Your task to perform on an android device: toggle notifications settings in the gmail app Image 0: 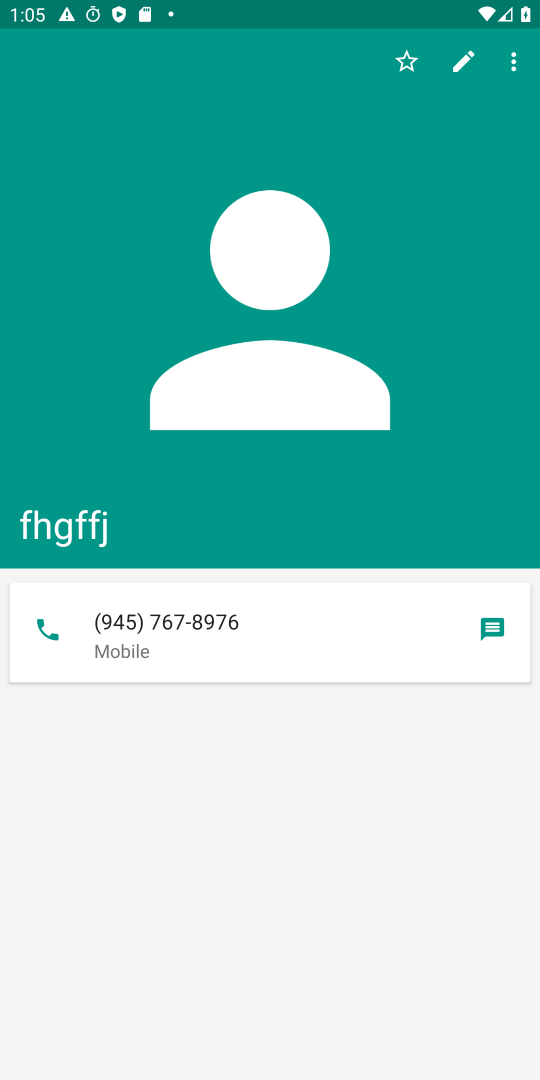
Step 0: press home button
Your task to perform on an android device: toggle notifications settings in the gmail app Image 1: 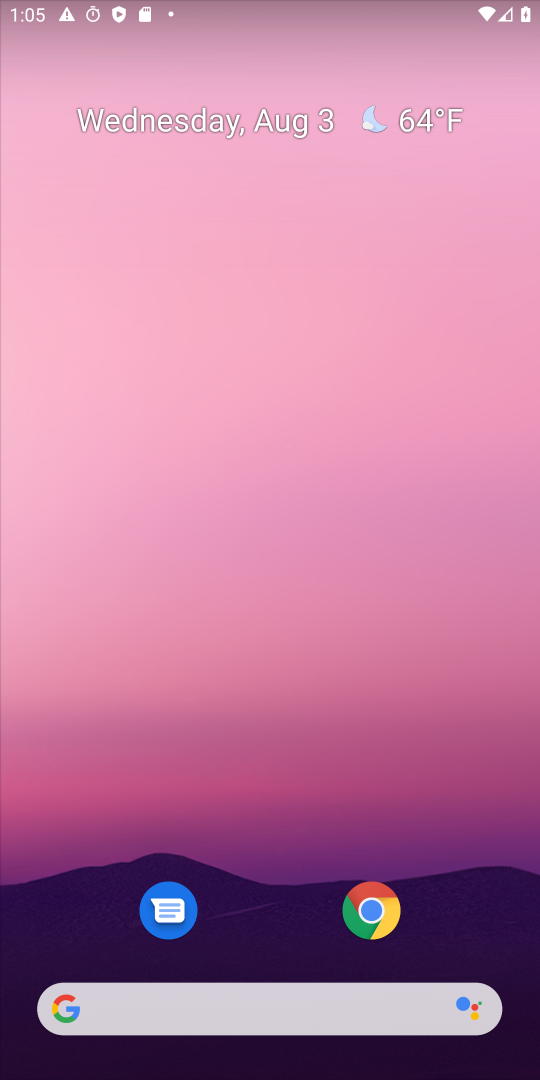
Step 1: drag from (287, 1009) to (406, 5)
Your task to perform on an android device: toggle notifications settings in the gmail app Image 2: 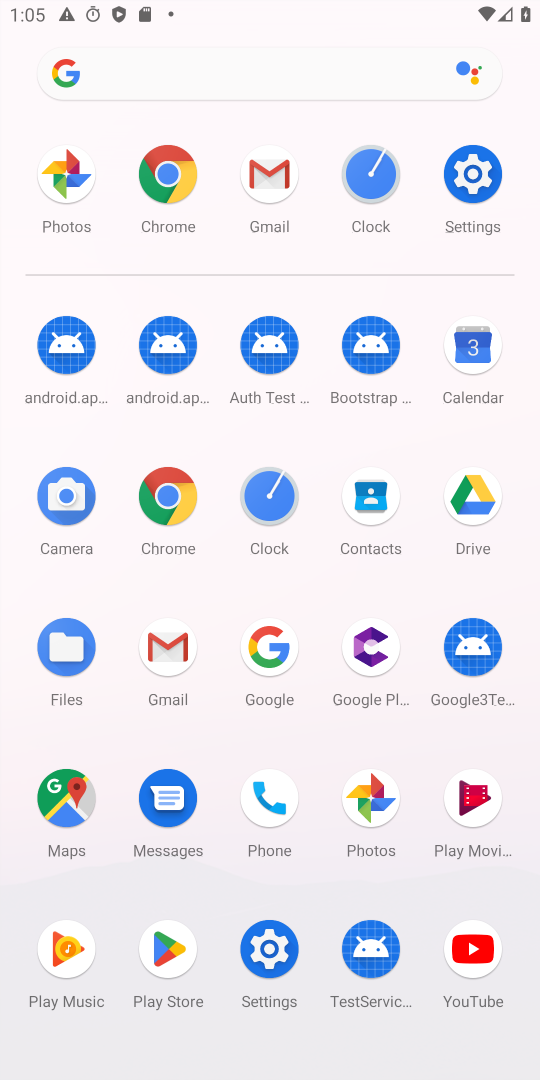
Step 2: click (156, 648)
Your task to perform on an android device: toggle notifications settings in the gmail app Image 3: 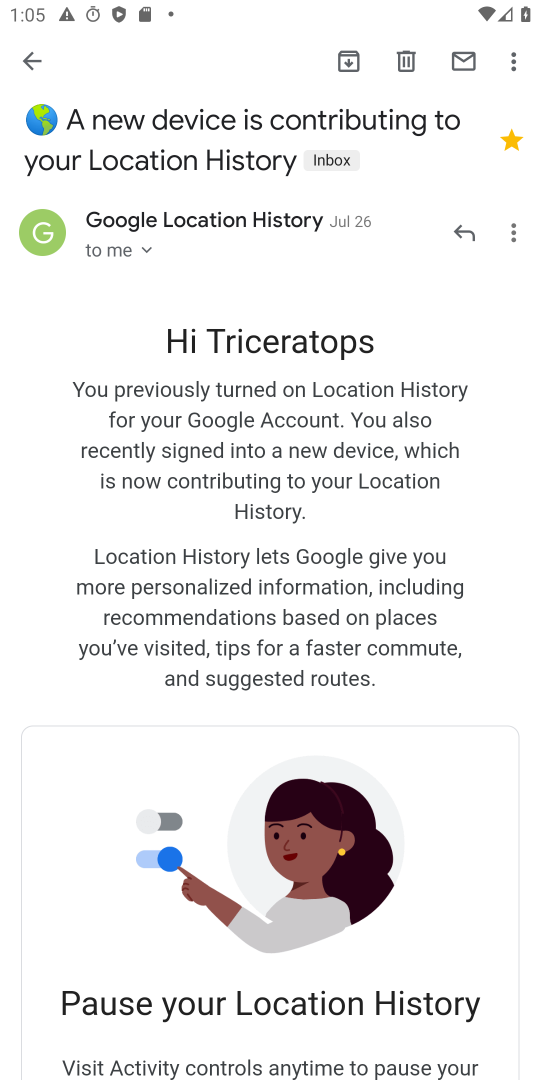
Step 3: press back button
Your task to perform on an android device: toggle notifications settings in the gmail app Image 4: 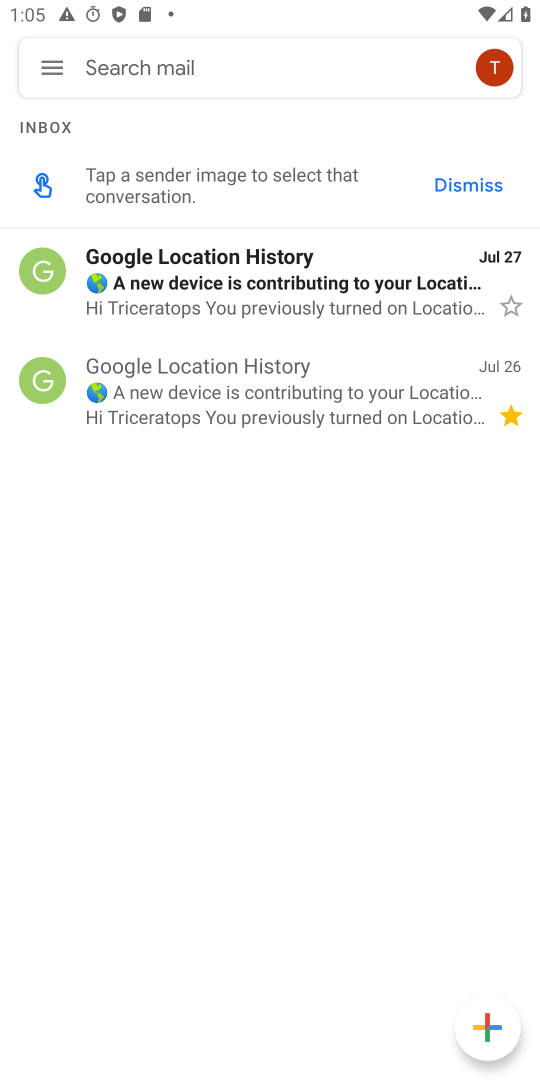
Step 4: click (62, 62)
Your task to perform on an android device: toggle notifications settings in the gmail app Image 5: 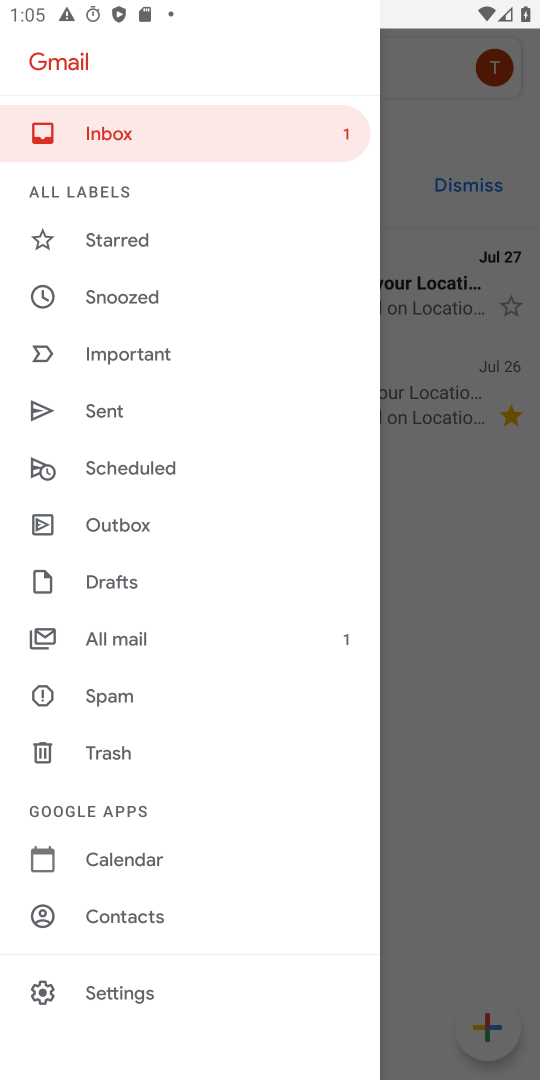
Step 5: click (127, 997)
Your task to perform on an android device: toggle notifications settings in the gmail app Image 6: 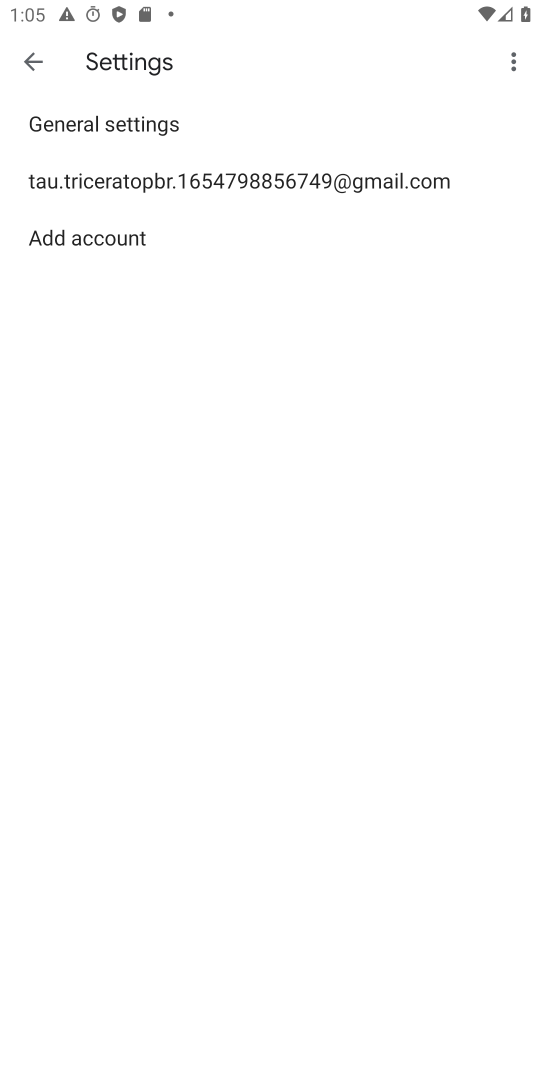
Step 6: click (137, 171)
Your task to perform on an android device: toggle notifications settings in the gmail app Image 7: 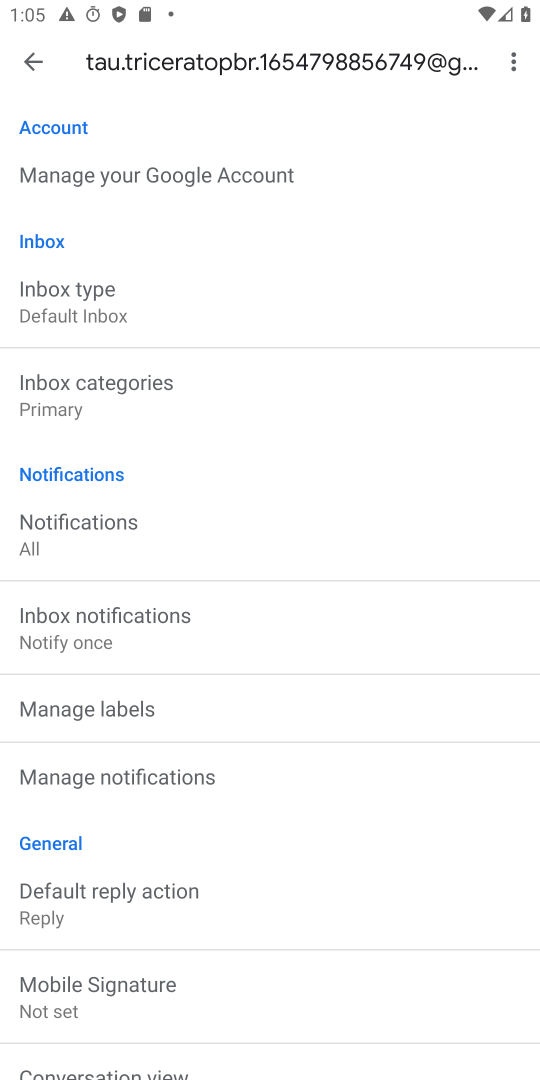
Step 7: click (191, 776)
Your task to perform on an android device: toggle notifications settings in the gmail app Image 8: 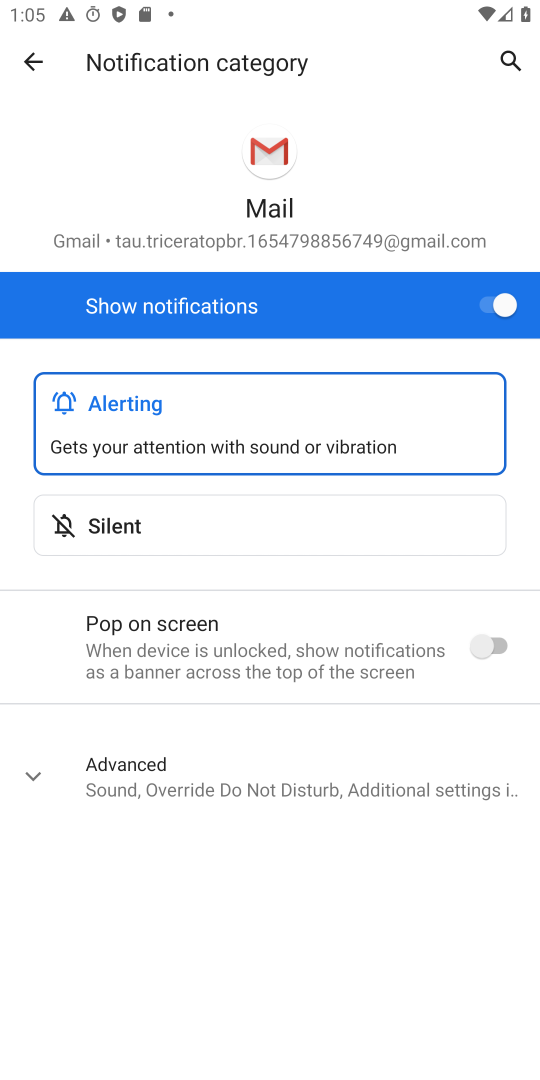
Step 8: click (494, 298)
Your task to perform on an android device: toggle notifications settings in the gmail app Image 9: 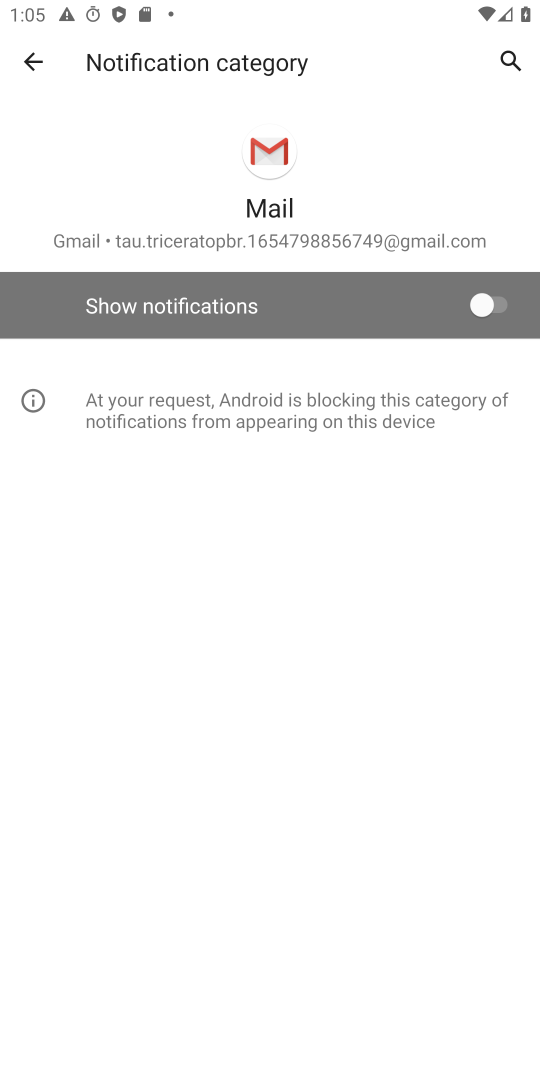
Step 9: task complete